Your task to perform on an android device: Open Google Maps and go to "Timeline" Image 0: 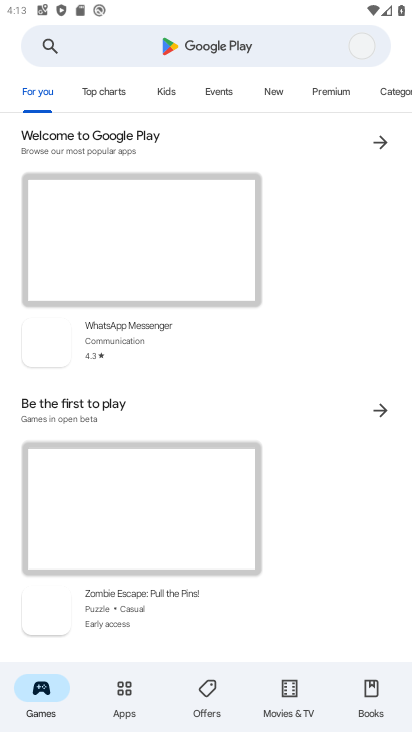
Step 0: press home button
Your task to perform on an android device: Open Google Maps and go to "Timeline" Image 1: 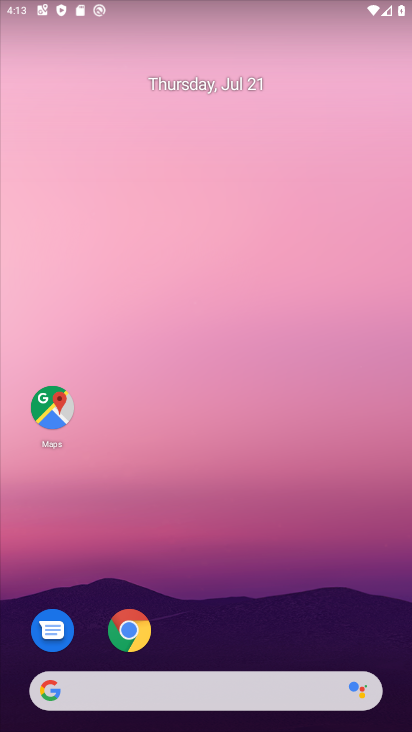
Step 1: click (56, 419)
Your task to perform on an android device: Open Google Maps and go to "Timeline" Image 2: 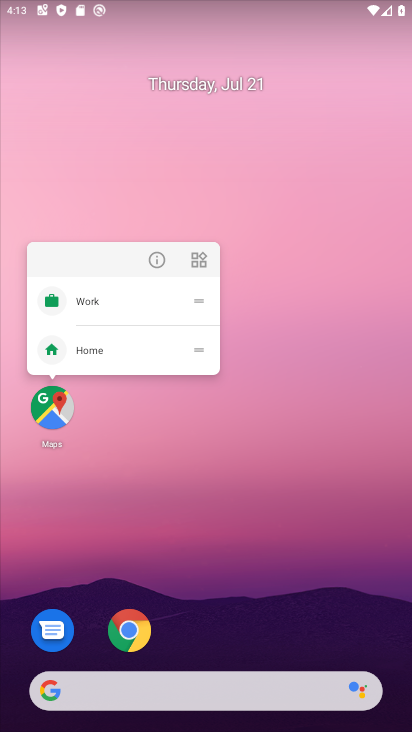
Step 2: click (49, 415)
Your task to perform on an android device: Open Google Maps and go to "Timeline" Image 3: 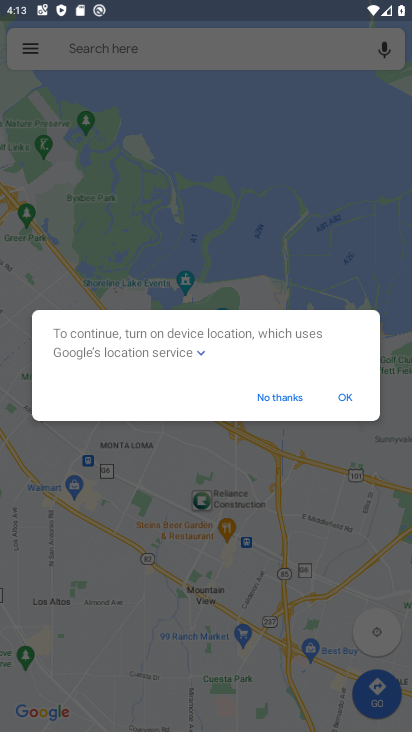
Step 3: click (345, 395)
Your task to perform on an android device: Open Google Maps and go to "Timeline" Image 4: 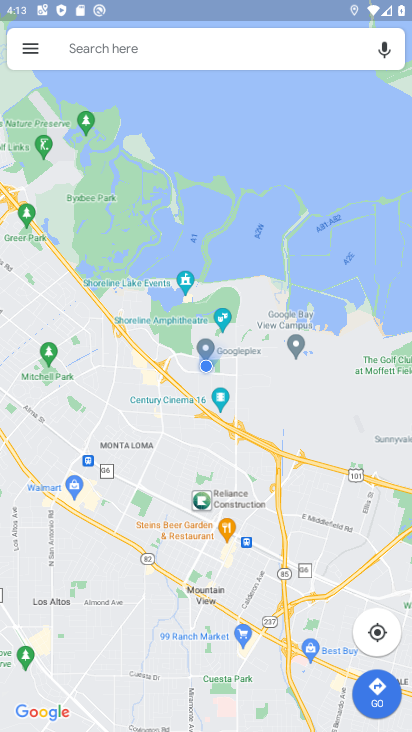
Step 4: click (34, 53)
Your task to perform on an android device: Open Google Maps and go to "Timeline" Image 5: 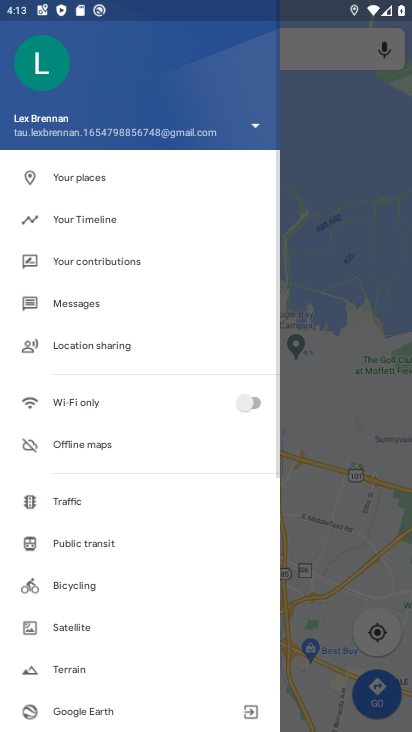
Step 5: click (84, 208)
Your task to perform on an android device: Open Google Maps and go to "Timeline" Image 6: 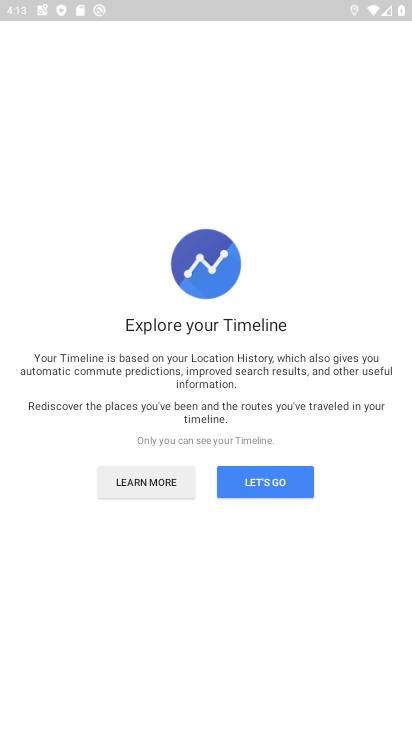
Step 6: click (269, 481)
Your task to perform on an android device: Open Google Maps and go to "Timeline" Image 7: 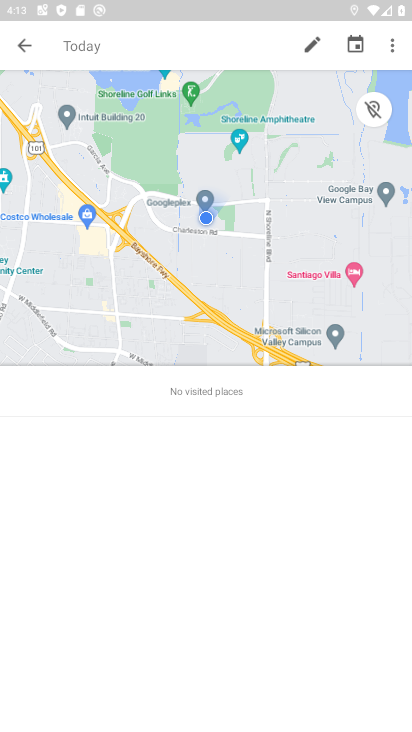
Step 7: click (31, 43)
Your task to perform on an android device: Open Google Maps and go to "Timeline" Image 8: 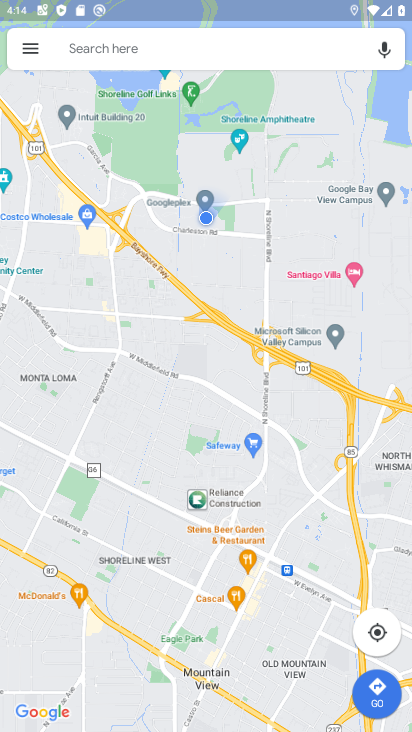
Step 8: task complete